Your task to perform on an android device: open app "YouTube Kids" (install if not already installed), go to login, and select forgot password Image 0: 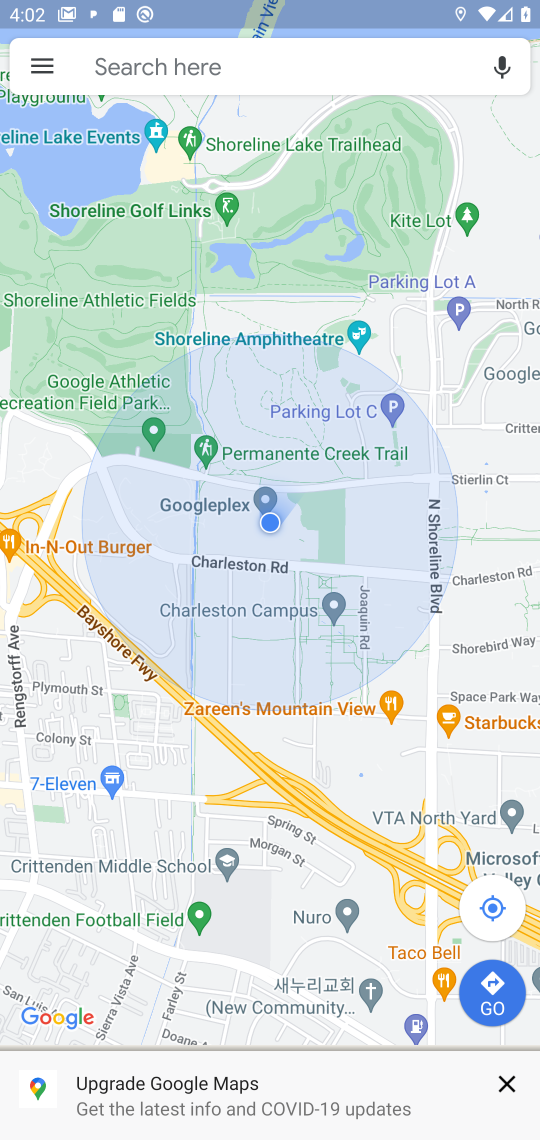
Step 0: press home button
Your task to perform on an android device: open app "YouTube Kids" (install if not already installed), go to login, and select forgot password Image 1: 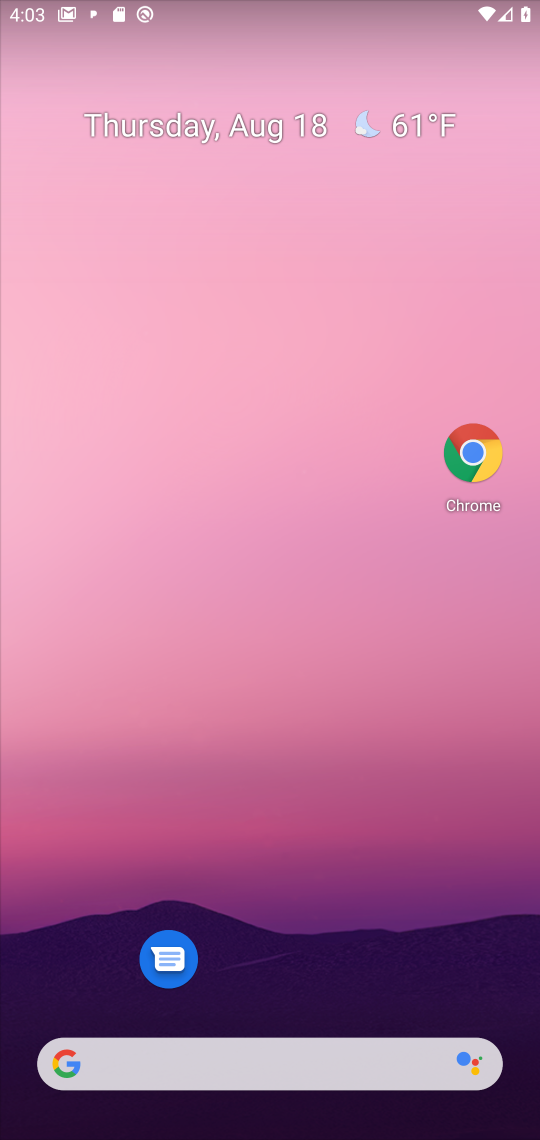
Step 1: drag from (214, 1010) to (319, 2)
Your task to perform on an android device: open app "YouTube Kids" (install if not already installed), go to login, and select forgot password Image 2: 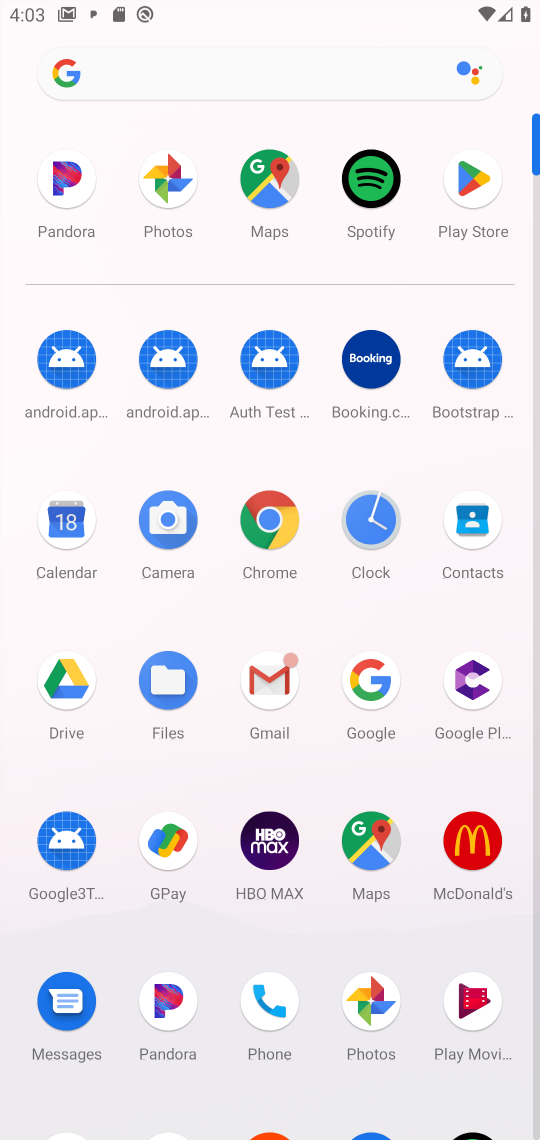
Step 2: click (466, 214)
Your task to perform on an android device: open app "YouTube Kids" (install if not already installed), go to login, and select forgot password Image 3: 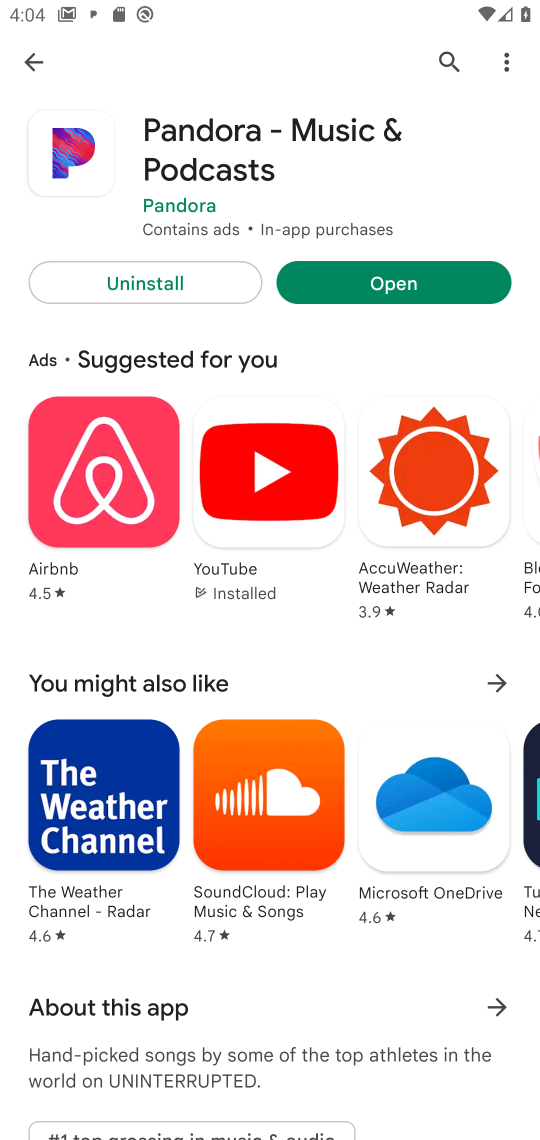
Step 3: click (22, 68)
Your task to perform on an android device: open app "YouTube Kids" (install if not already installed), go to login, and select forgot password Image 4: 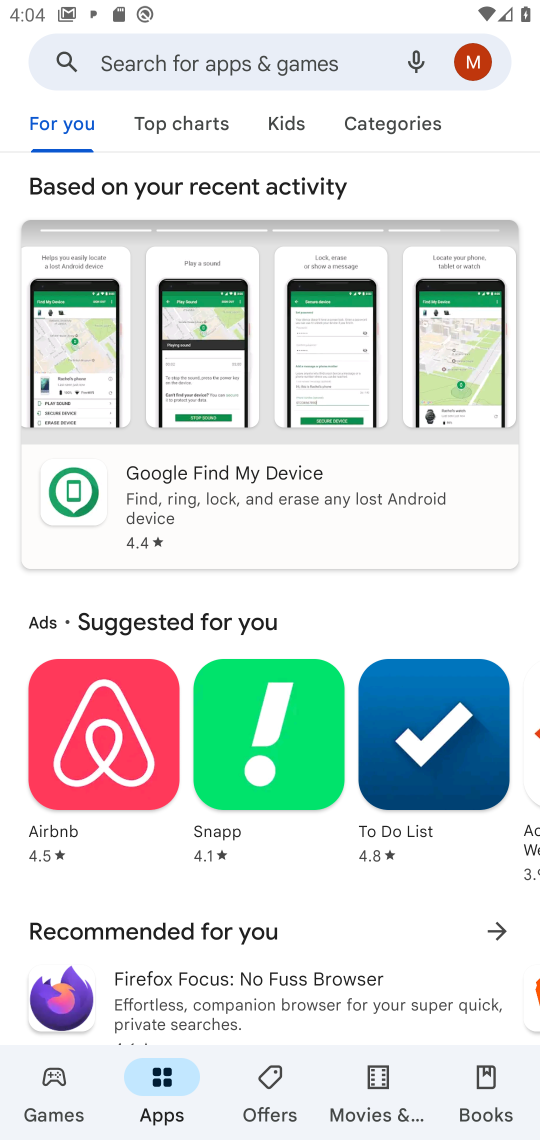
Step 4: click (242, 71)
Your task to perform on an android device: open app "YouTube Kids" (install if not already installed), go to login, and select forgot password Image 5: 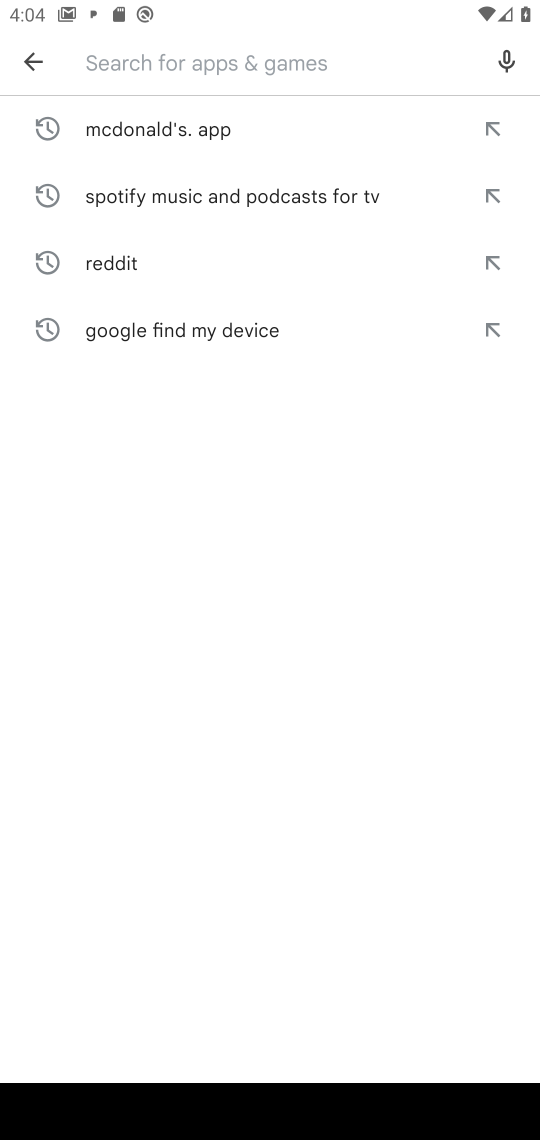
Step 5: type "YouTube Kids"
Your task to perform on an android device: open app "YouTube Kids" (install if not already installed), go to login, and select forgot password Image 6: 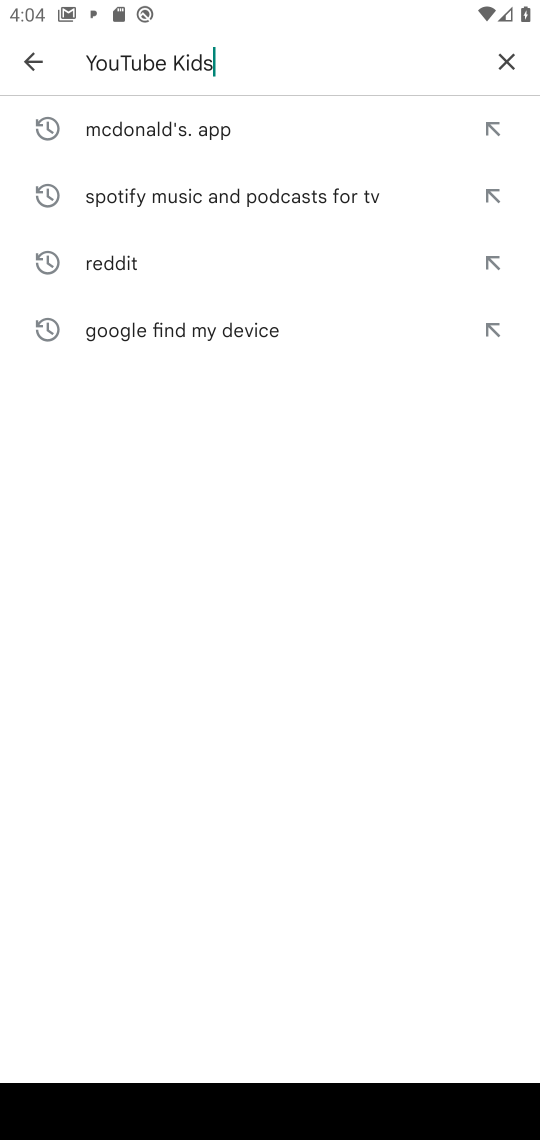
Step 6: type ""
Your task to perform on an android device: open app "YouTube Kids" (install if not already installed), go to login, and select forgot password Image 7: 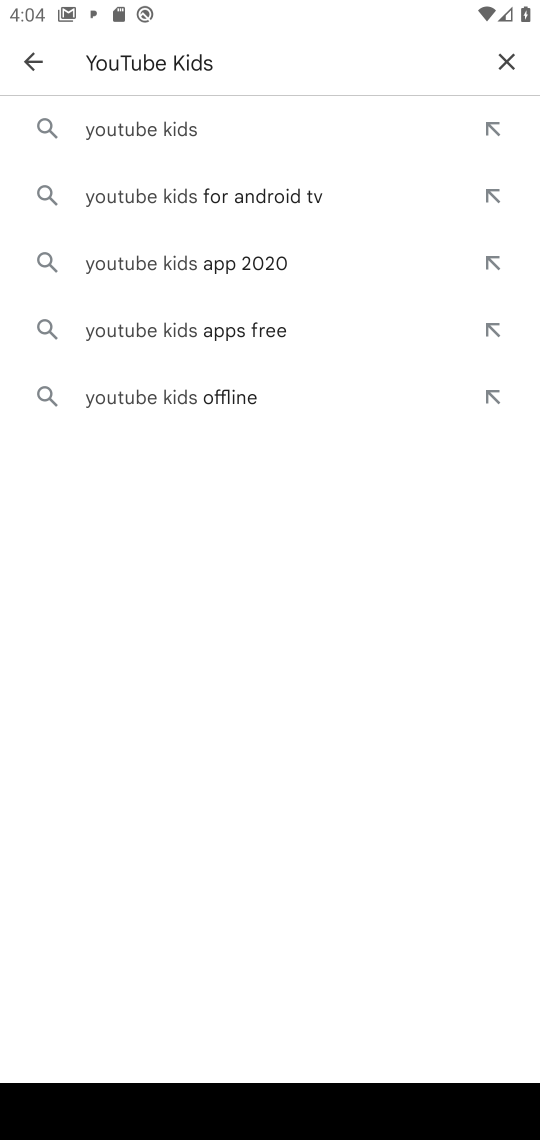
Step 7: click (213, 135)
Your task to perform on an android device: open app "YouTube Kids" (install if not already installed), go to login, and select forgot password Image 8: 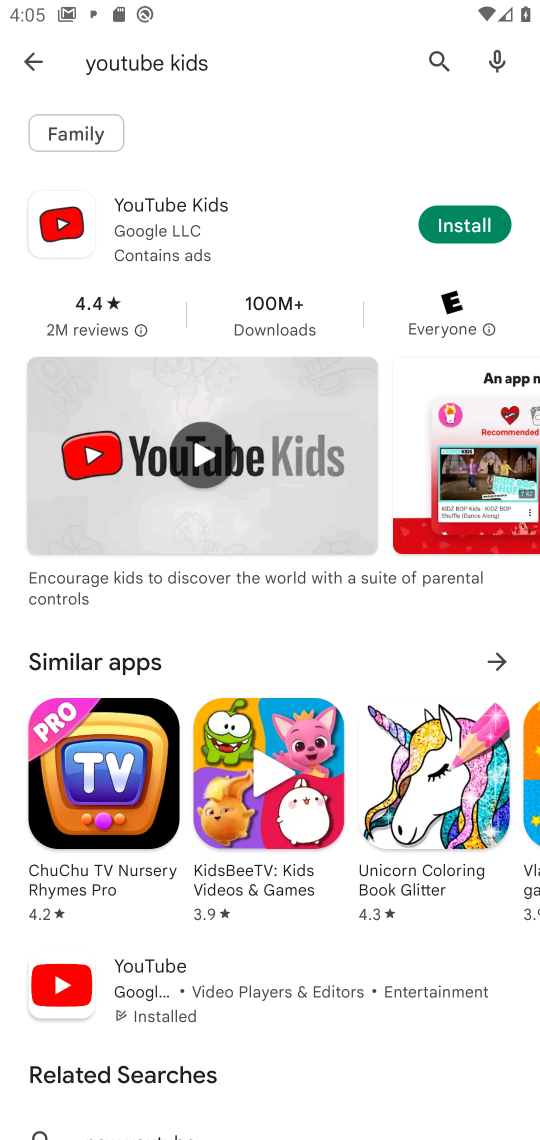
Step 8: click (444, 210)
Your task to perform on an android device: open app "YouTube Kids" (install if not already installed), go to login, and select forgot password Image 9: 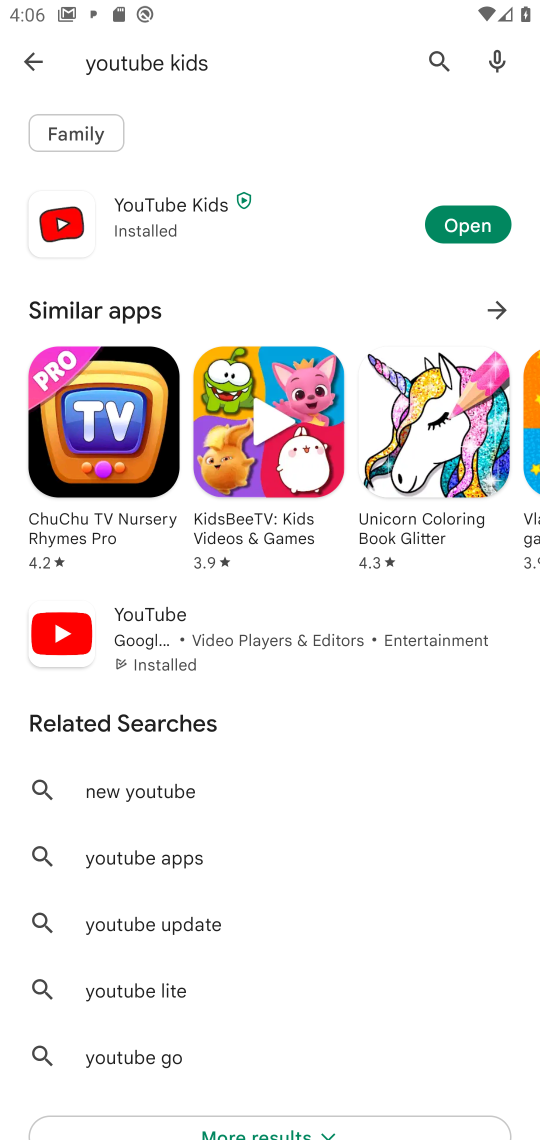
Step 9: click (484, 235)
Your task to perform on an android device: open app "YouTube Kids" (install if not already installed), go to login, and select forgot password Image 10: 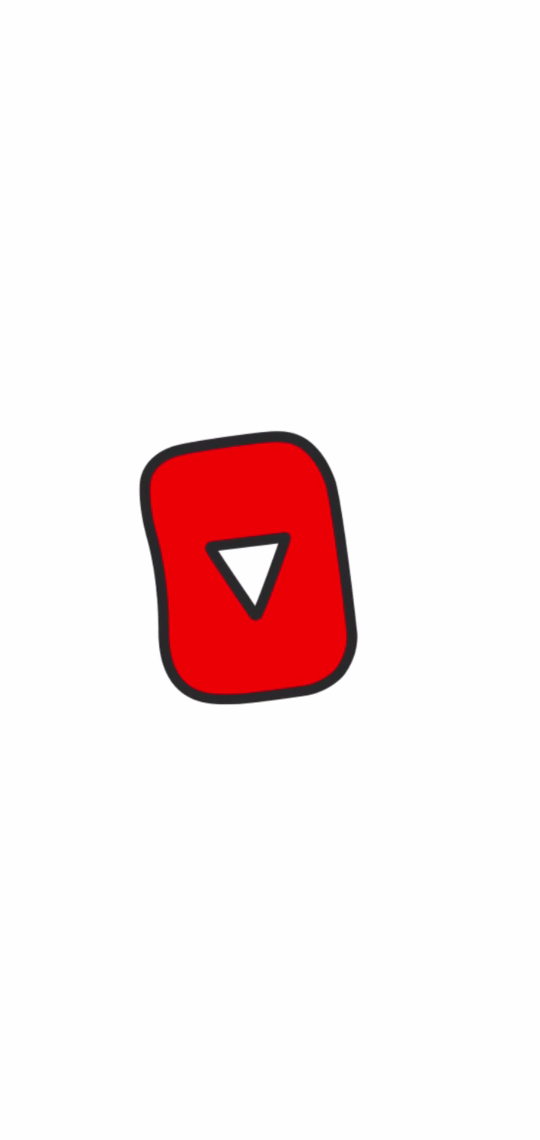
Step 10: task complete